Your task to perform on an android device: change alarm snooze length Image 0: 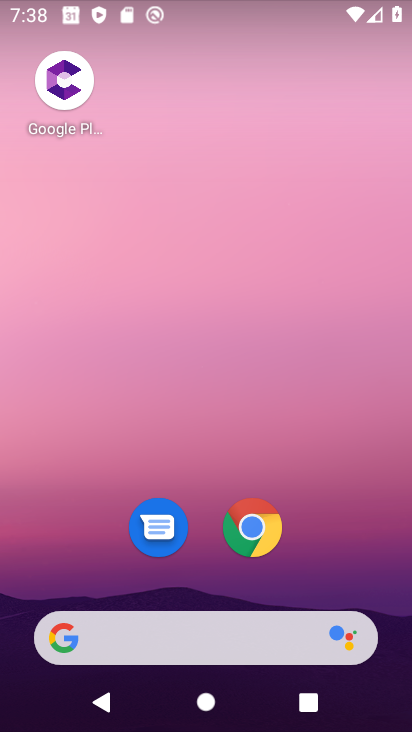
Step 0: drag from (322, 563) to (359, 15)
Your task to perform on an android device: change alarm snooze length Image 1: 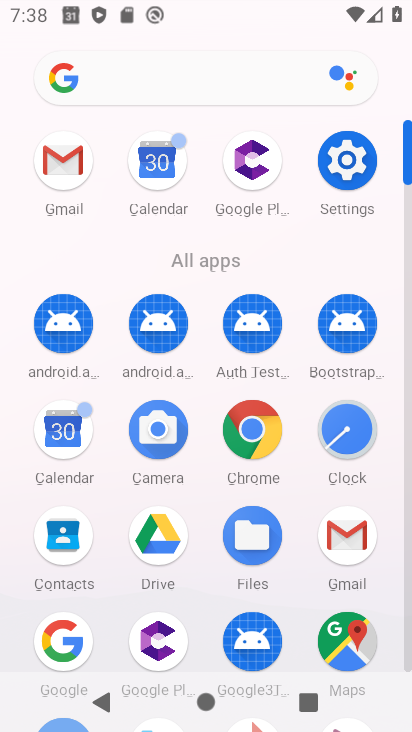
Step 1: click (341, 426)
Your task to perform on an android device: change alarm snooze length Image 2: 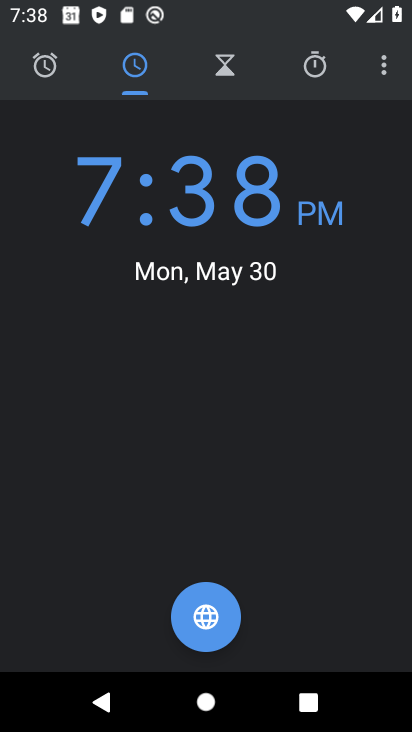
Step 2: click (370, 79)
Your task to perform on an android device: change alarm snooze length Image 3: 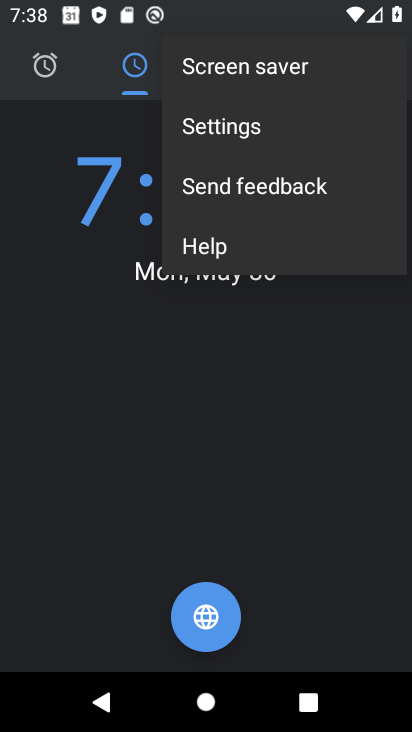
Step 3: click (228, 140)
Your task to perform on an android device: change alarm snooze length Image 4: 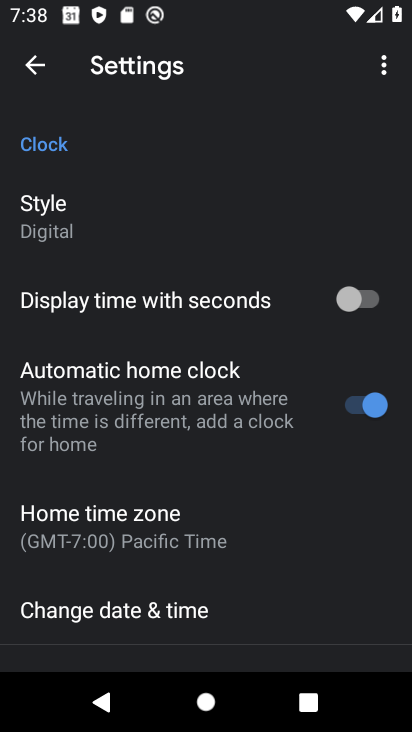
Step 4: drag from (136, 605) to (195, 77)
Your task to perform on an android device: change alarm snooze length Image 5: 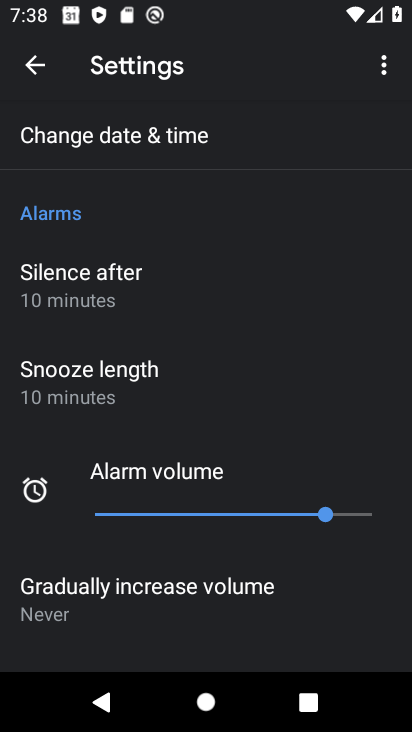
Step 5: click (84, 381)
Your task to perform on an android device: change alarm snooze length Image 6: 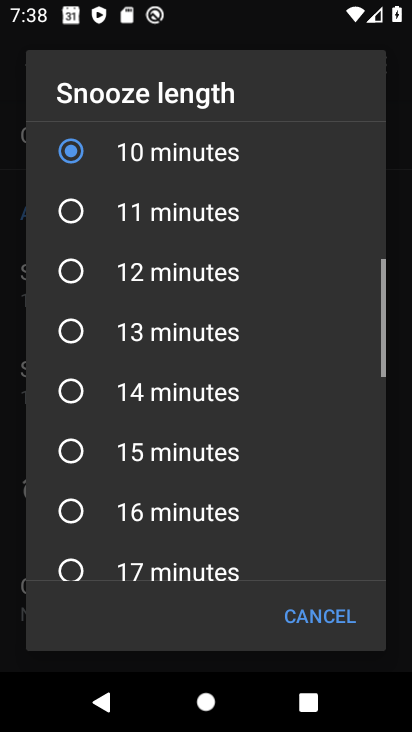
Step 6: click (176, 224)
Your task to perform on an android device: change alarm snooze length Image 7: 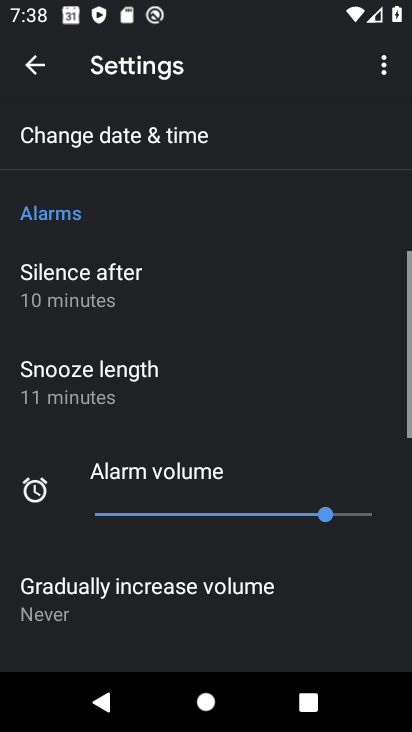
Step 7: task complete